Your task to perform on an android device: open app "Etsy: Buy & Sell Unique Items" (install if not already installed) Image 0: 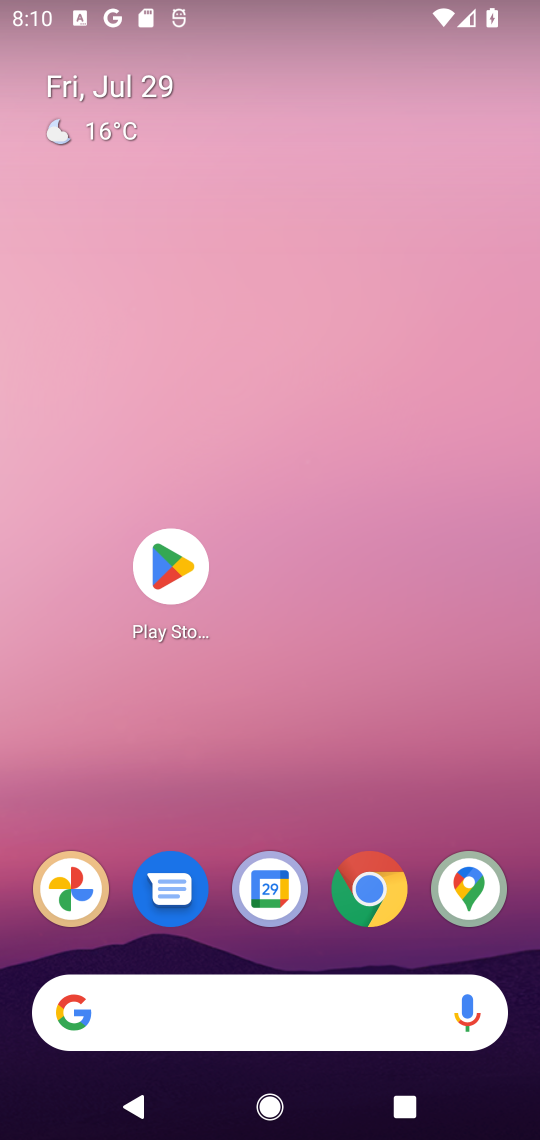
Step 0: press home button
Your task to perform on an android device: open app "Etsy: Buy & Sell Unique Items" (install if not already installed) Image 1: 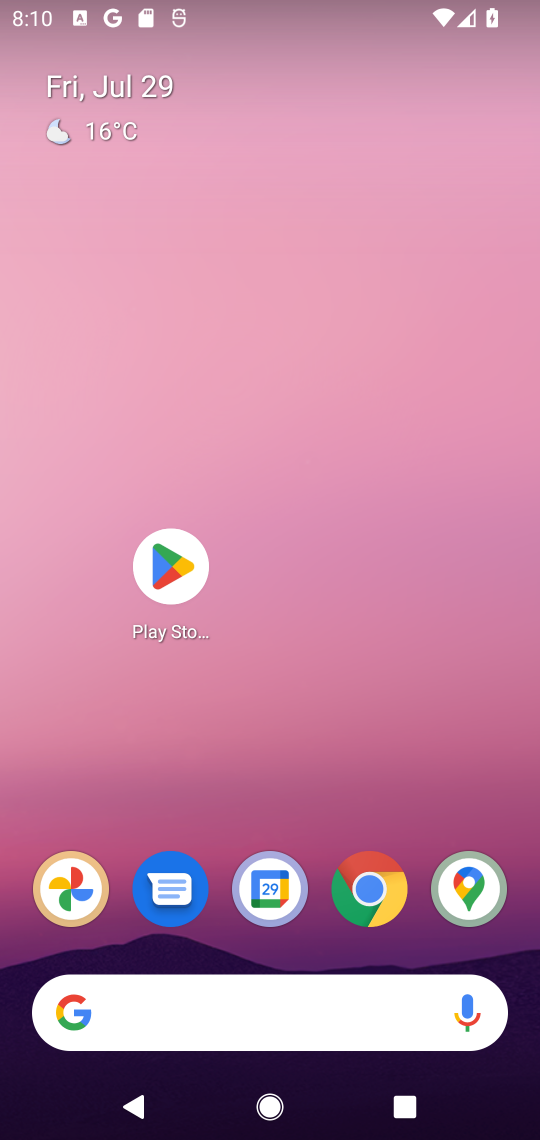
Step 1: click (176, 566)
Your task to perform on an android device: open app "Etsy: Buy & Sell Unique Items" (install if not already installed) Image 2: 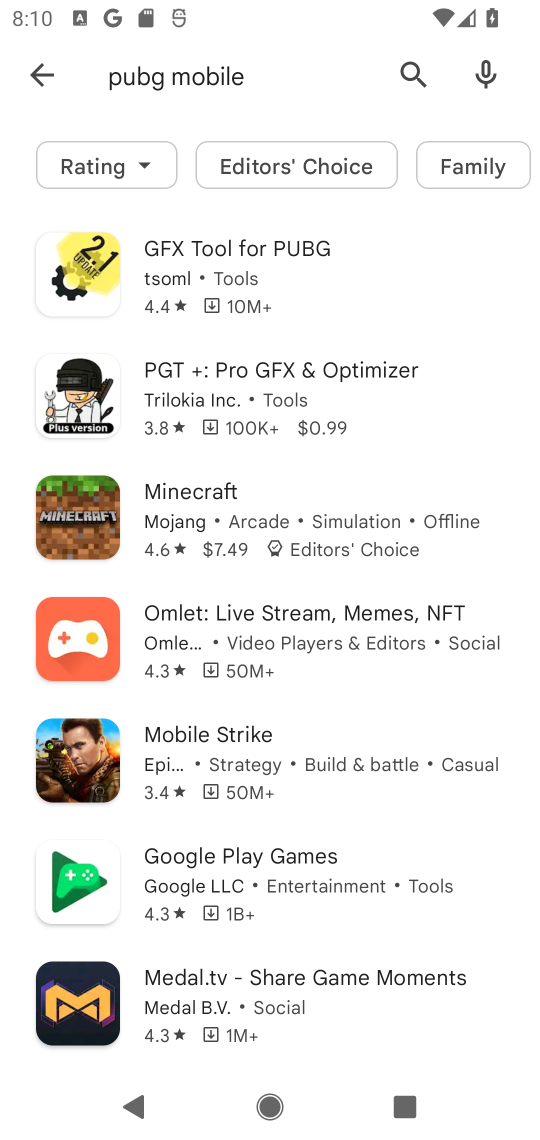
Step 2: click (417, 65)
Your task to perform on an android device: open app "Etsy: Buy & Sell Unique Items" (install if not already installed) Image 3: 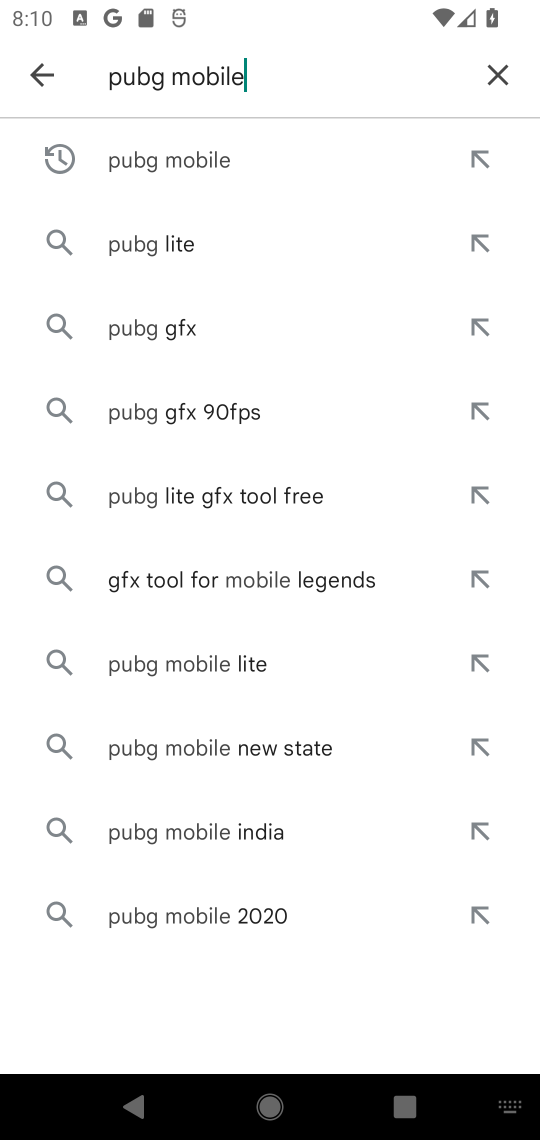
Step 3: click (498, 71)
Your task to perform on an android device: open app "Etsy: Buy & Sell Unique Items" (install if not already installed) Image 4: 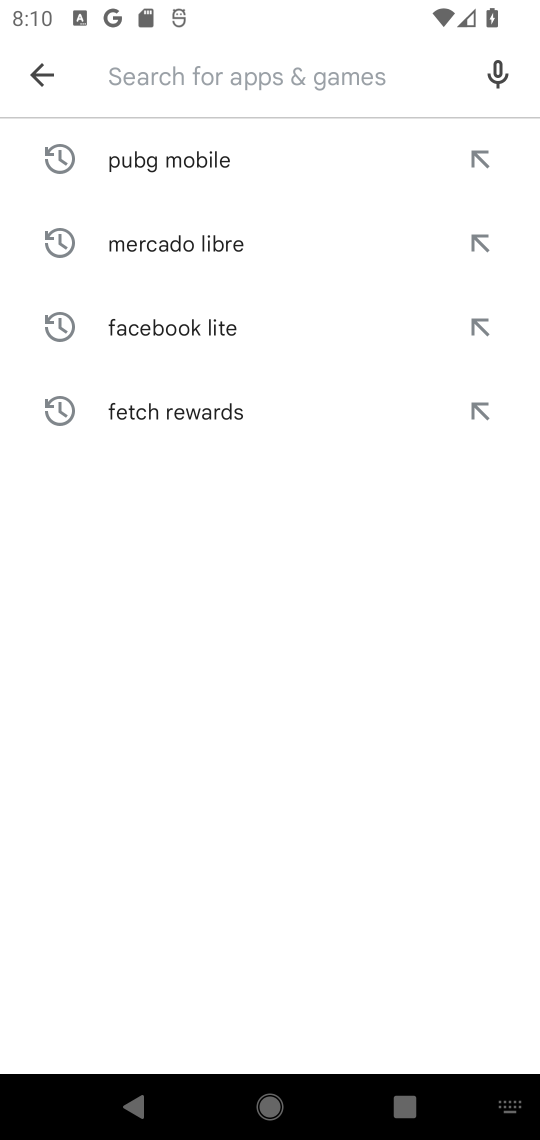
Step 4: type "Etsy: Buy & Sell Unique Items"
Your task to perform on an android device: open app "Etsy: Buy & Sell Unique Items" (install if not already installed) Image 5: 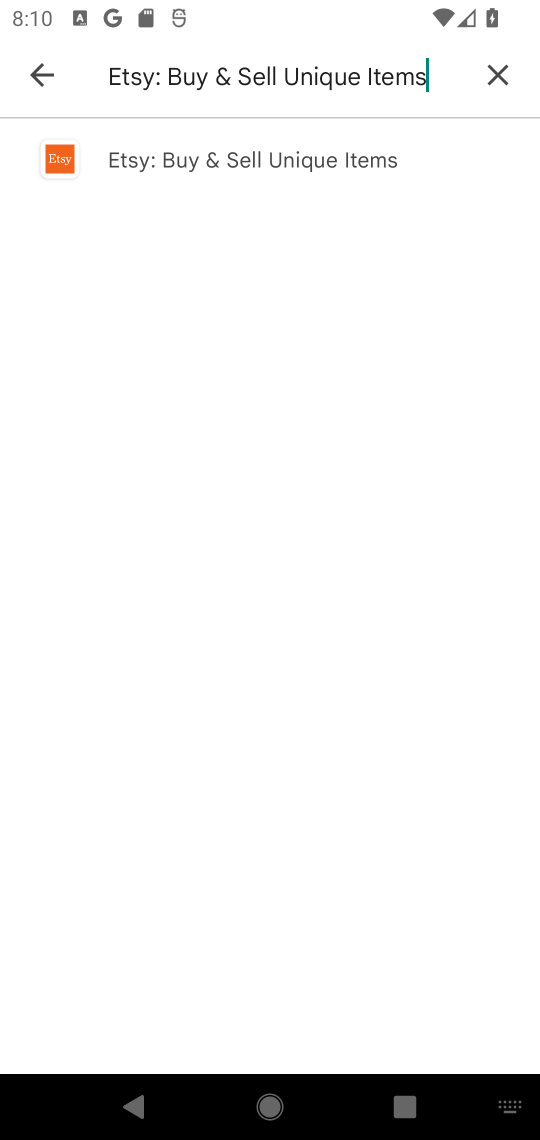
Step 5: click (267, 158)
Your task to perform on an android device: open app "Etsy: Buy & Sell Unique Items" (install if not already installed) Image 6: 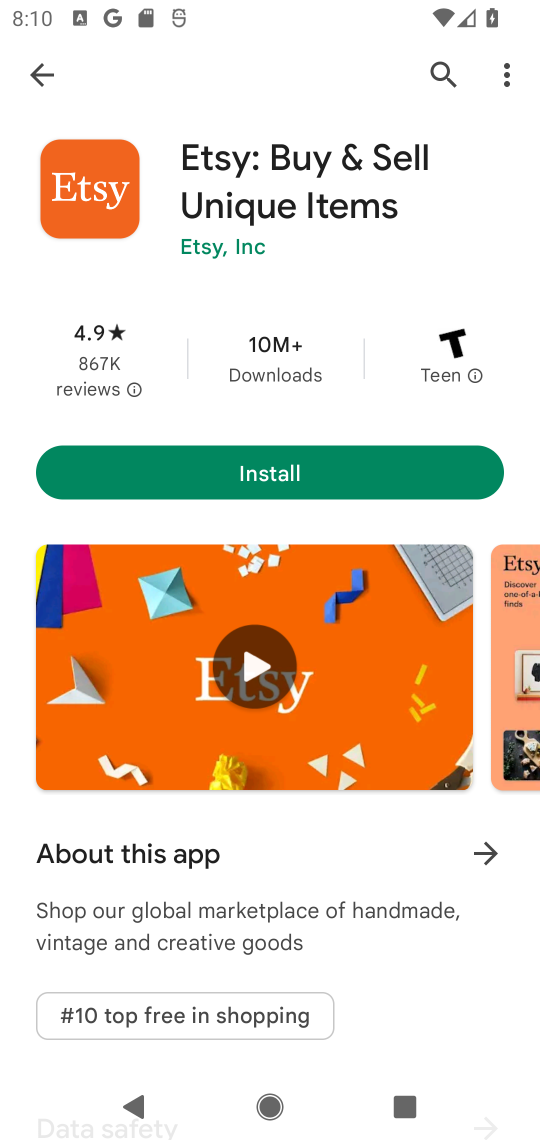
Step 6: click (264, 475)
Your task to perform on an android device: open app "Etsy: Buy & Sell Unique Items" (install if not already installed) Image 7: 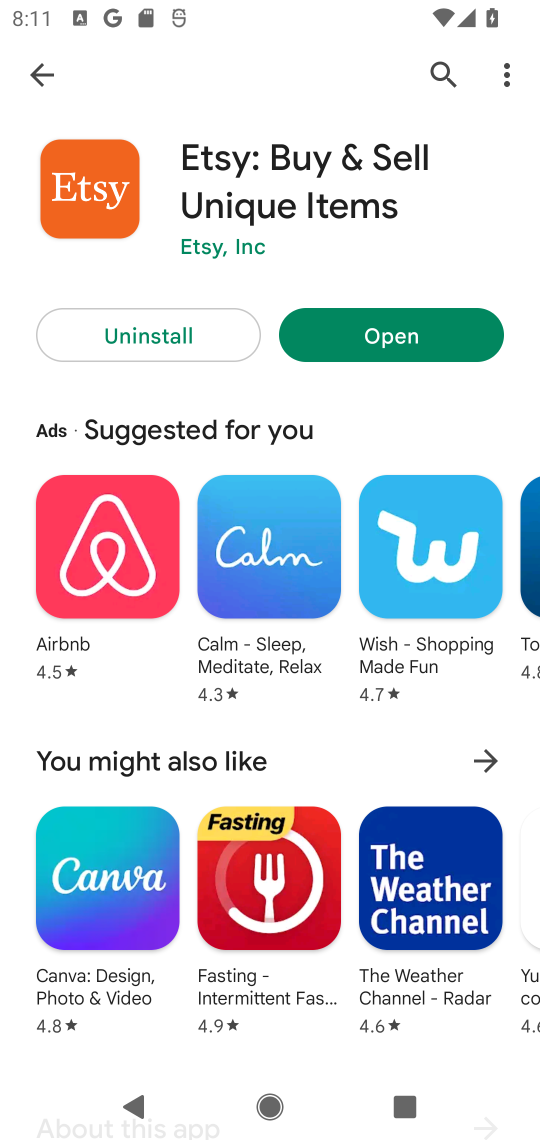
Step 7: click (439, 339)
Your task to perform on an android device: open app "Etsy: Buy & Sell Unique Items" (install if not already installed) Image 8: 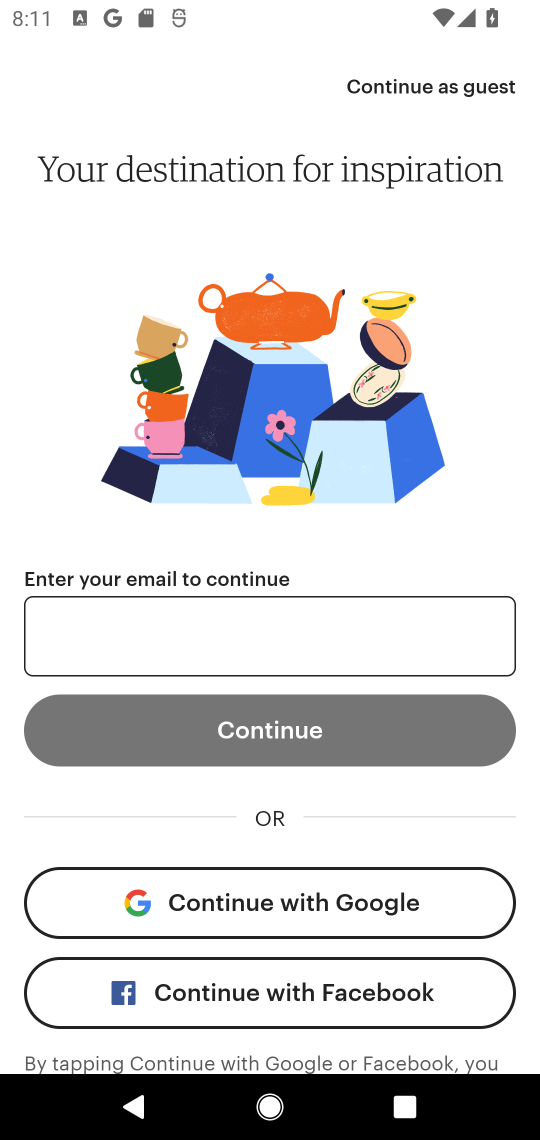
Step 8: task complete